Your task to perform on an android device: turn pop-ups on in chrome Image 0: 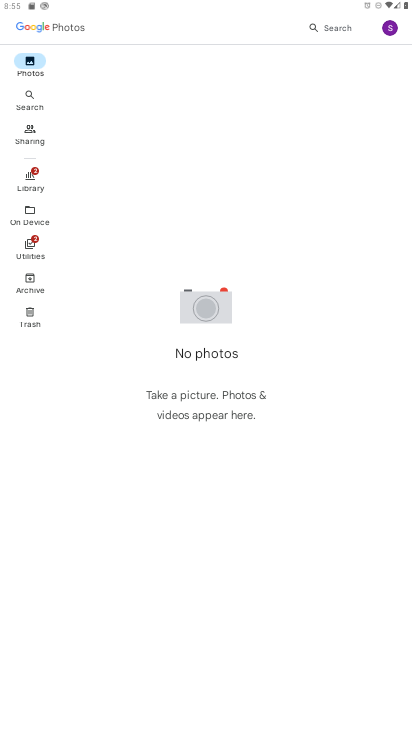
Step 0: press home button
Your task to perform on an android device: turn pop-ups on in chrome Image 1: 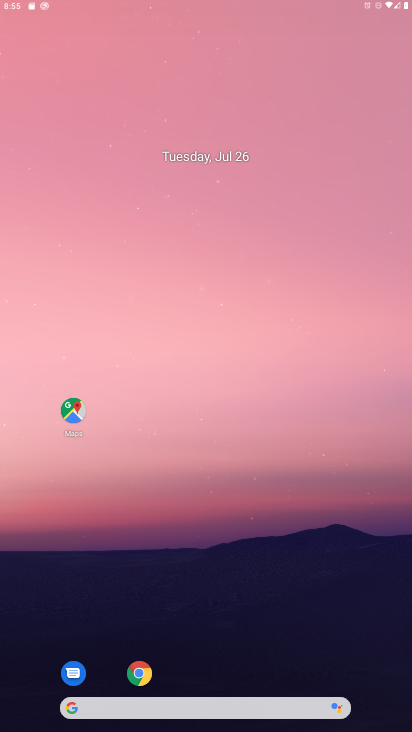
Step 1: drag from (381, 674) to (241, 22)
Your task to perform on an android device: turn pop-ups on in chrome Image 2: 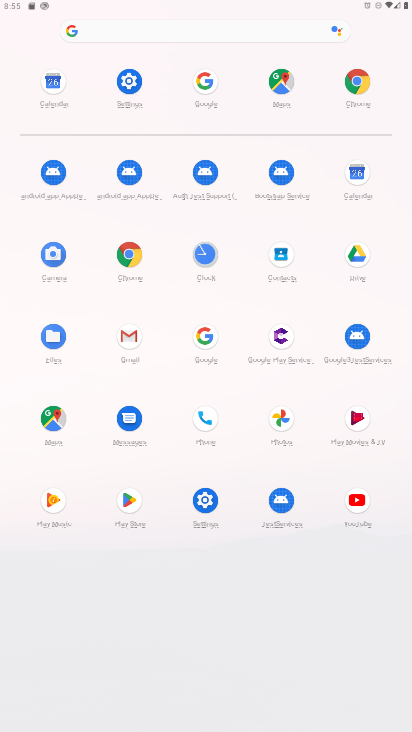
Step 2: click (127, 254)
Your task to perform on an android device: turn pop-ups on in chrome Image 3: 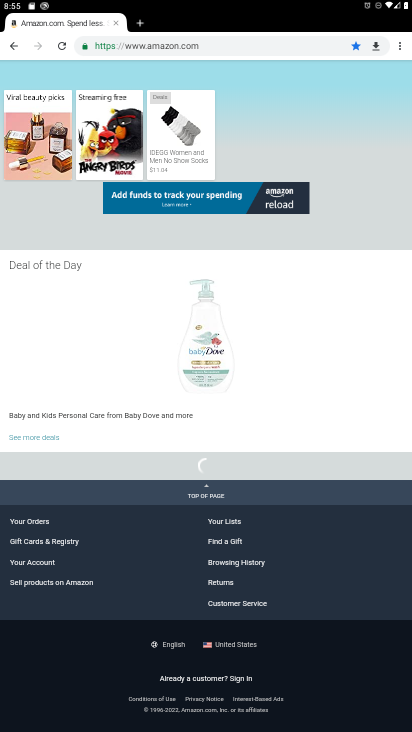
Step 3: click (400, 44)
Your task to perform on an android device: turn pop-ups on in chrome Image 4: 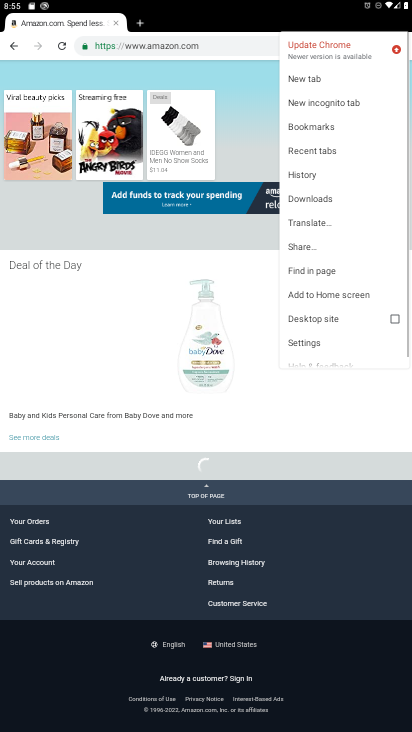
Step 4: click (303, 341)
Your task to perform on an android device: turn pop-ups on in chrome Image 5: 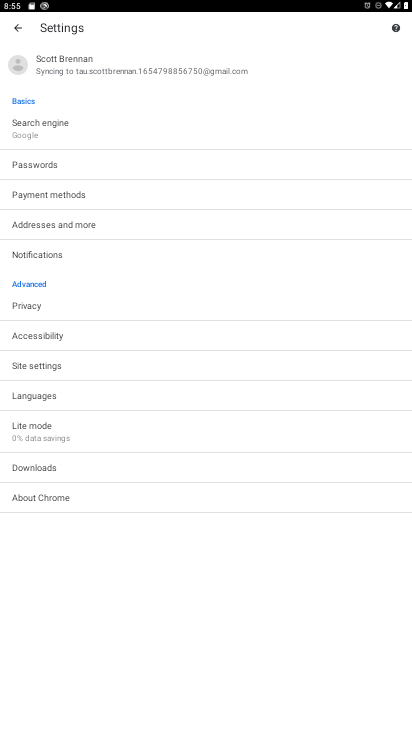
Step 5: click (65, 367)
Your task to perform on an android device: turn pop-ups on in chrome Image 6: 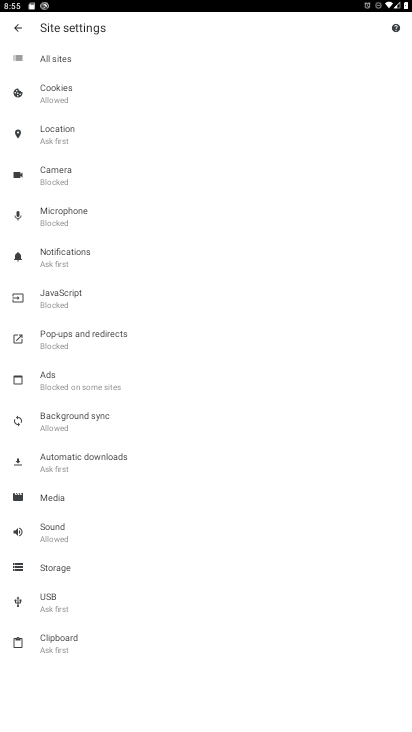
Step 6: click (63, 334)
Your task to perform on an android device: turn pop-ups on in chrome Image 7: 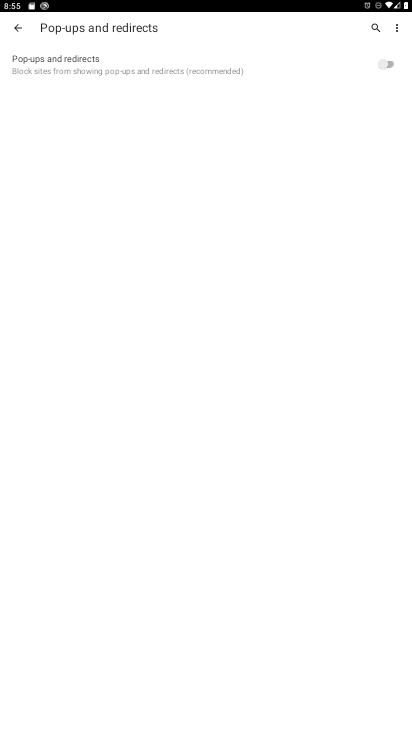
Step 7: click (374, 49)
Your task to perform on an android device: turn pop-ups on in chrome Image 8: 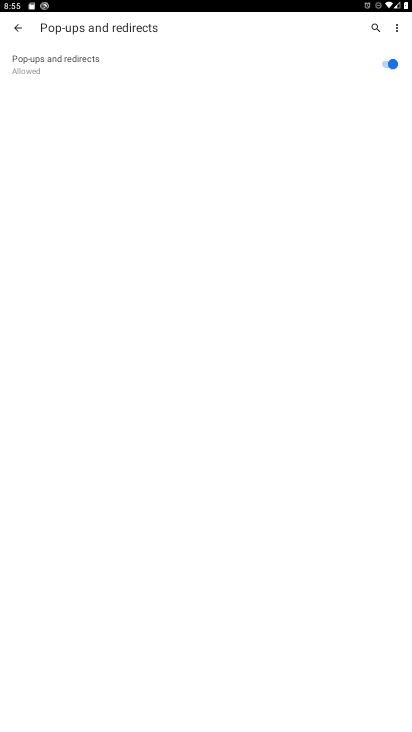
Step 8: task complete